Your task to perform on an android device: Is it going to rain this weekend? Image 0: 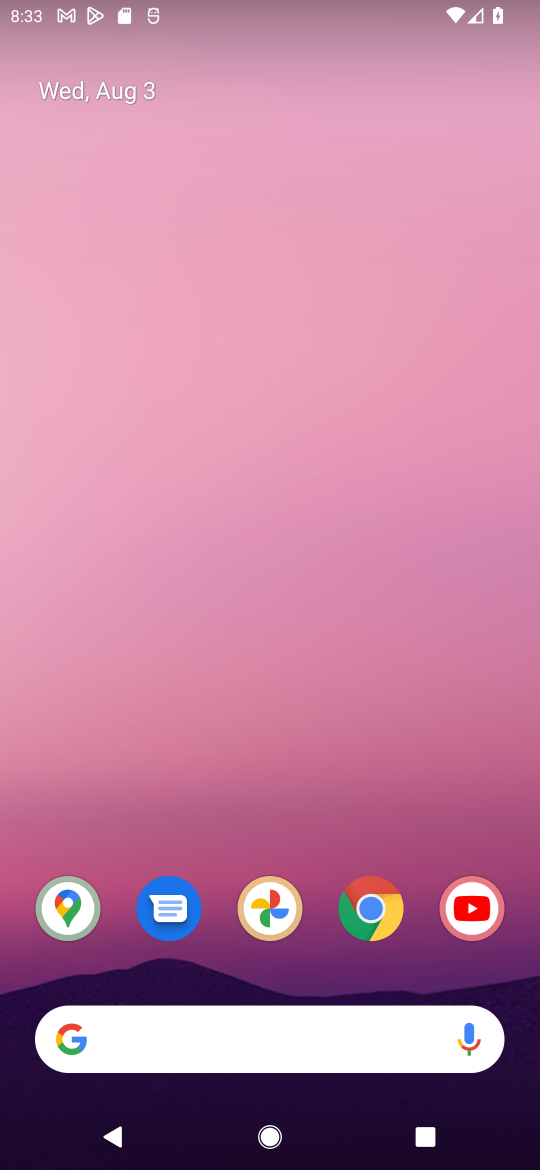
Step 0: drag from (226, 1034) to (313, 4)
Your task to perform on an android device: Is it going to rain this weekend? Image 1: 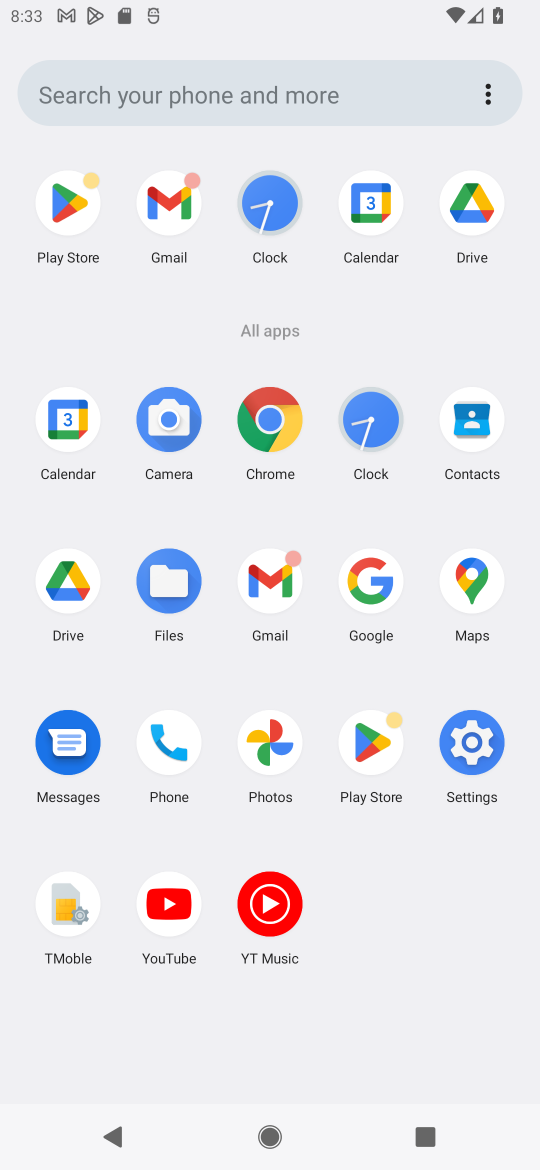
Step 1: click (261, 455)
Your task to perform on an android device: Is it going to rain this weekend? Image 2: 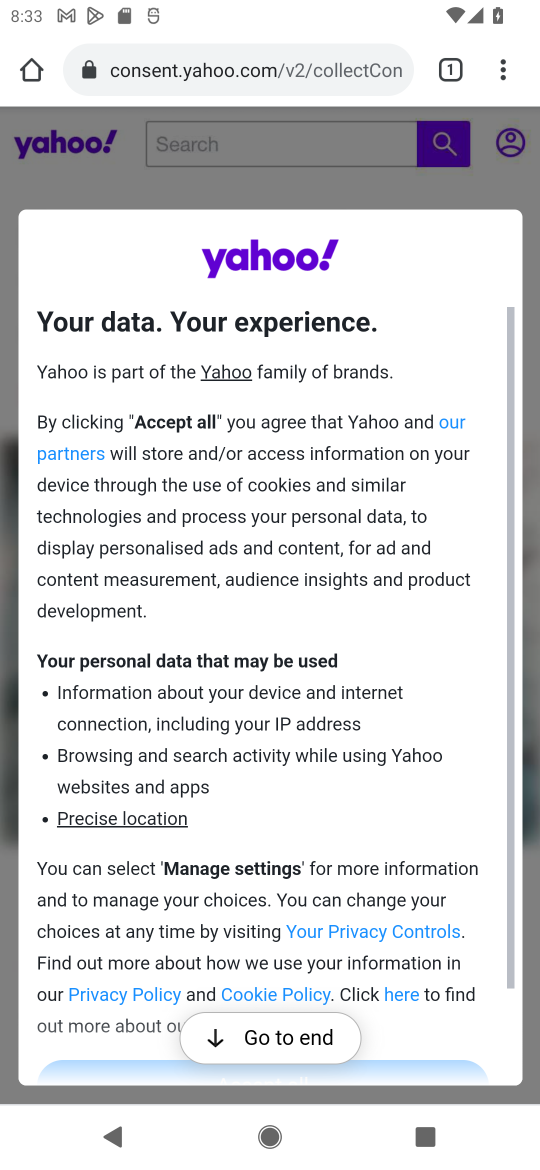
Step 2: click (276, 86)
Your task to perform on an android device: Is it going to rain this weekend? Image 3: 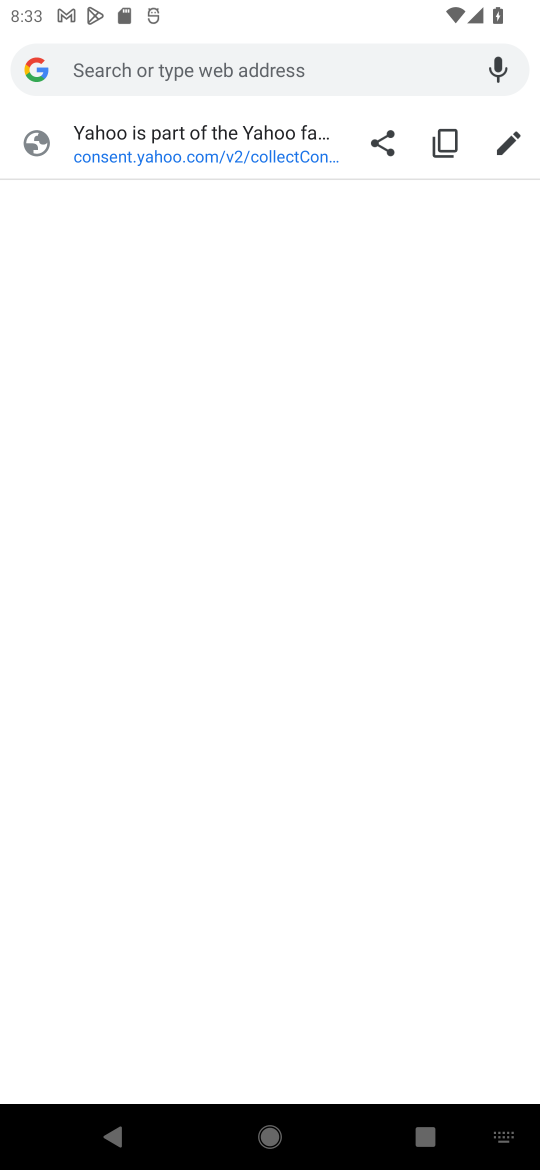
Step 3: type "weekend weather"
Your task to perform on an android device: Is it going to rain this weekend? Image 4: 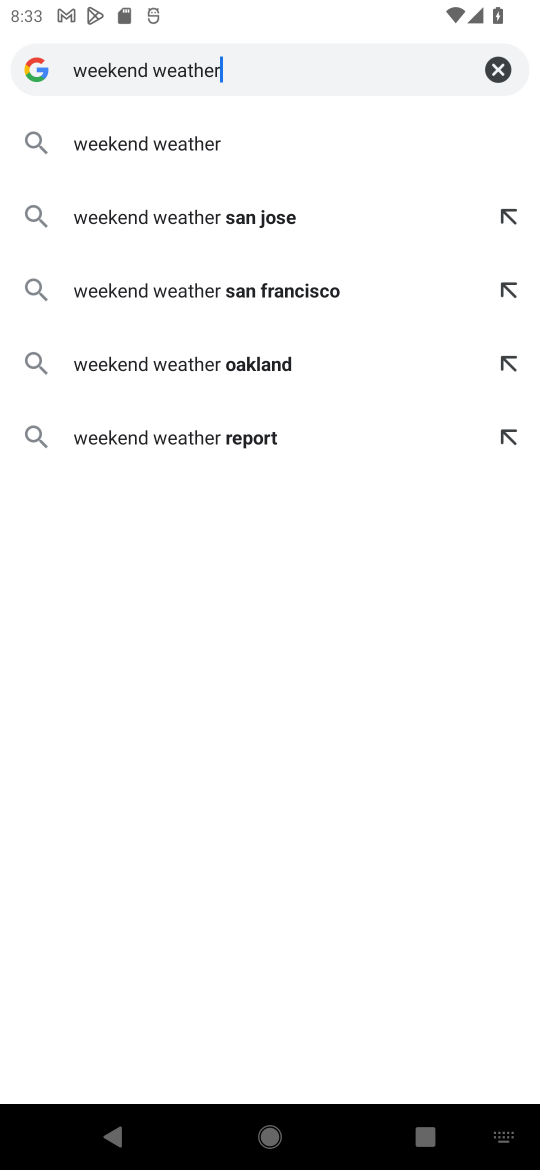
Step 4: click (198, 142)
Your task to perform on an android device: Is it going to rain this weekend? Image 5: 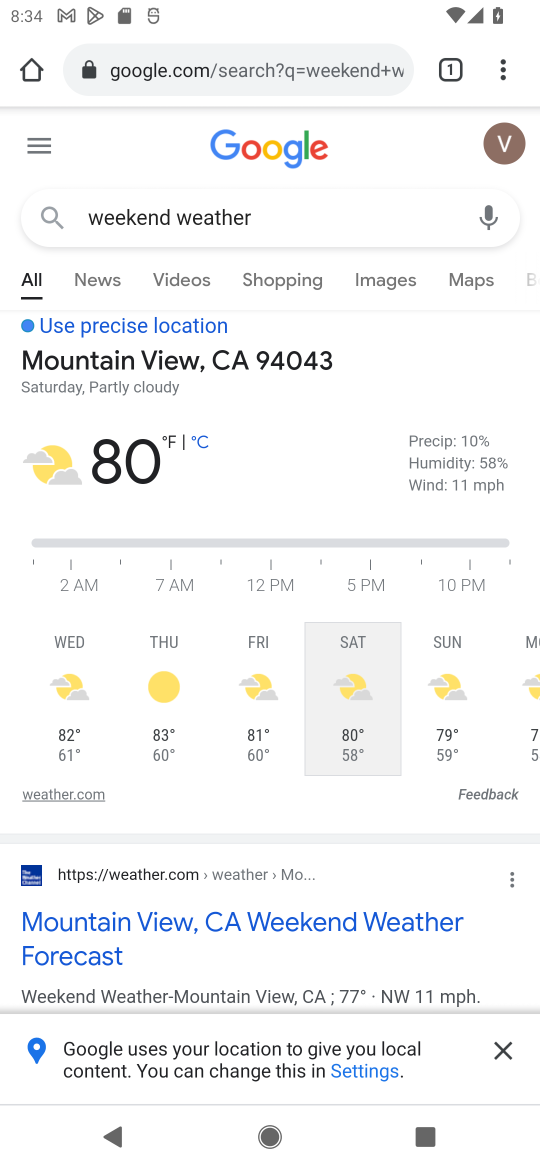
Step 5: task complete